Your task to perform on an android device: toggle data saver in the chrome app Image 0: 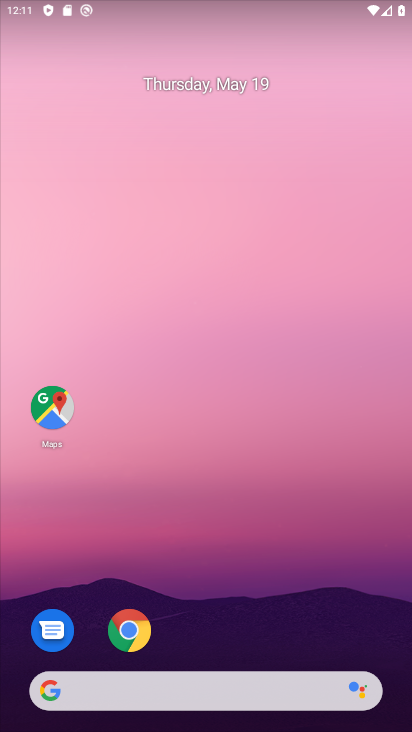
Step 0: click (132, 627)
Your task to perform on an android device: toggle data saver in the chrome app Image 1: 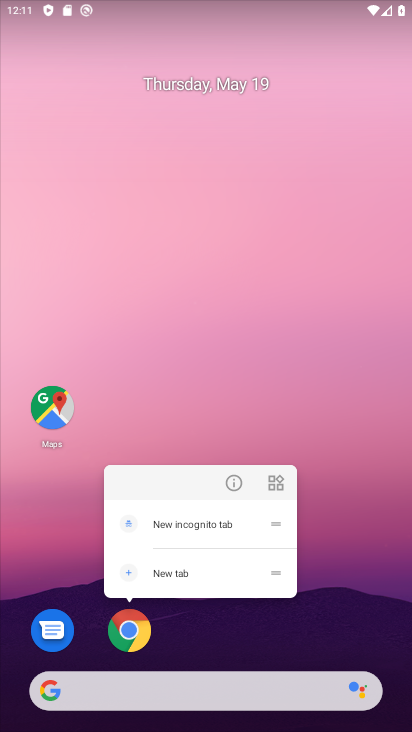
Step 1: click (225, 473)
Your task to perform on an android device: toggle data saver in the chrome app Image 2: 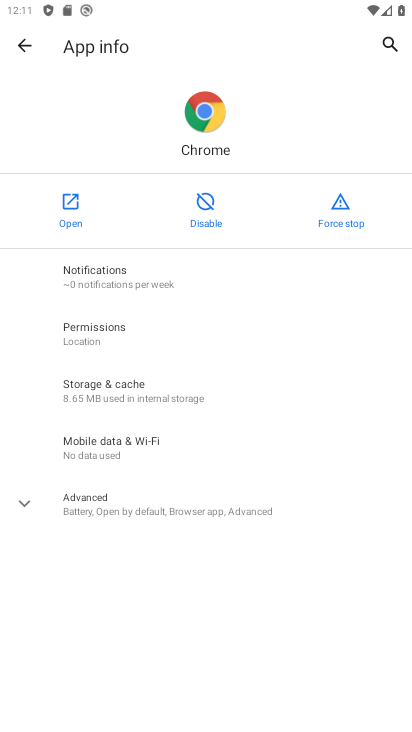
Step 2: click (59, 208)
Your task to perform on an android device: toggle data saver in the chrome app Image 3: 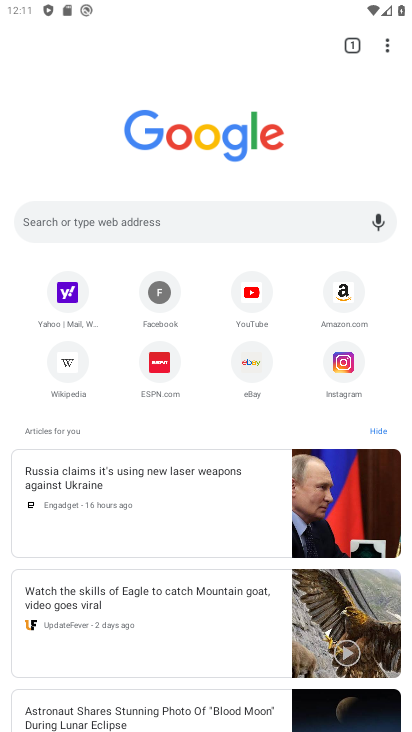
Step 3: click (381, 45)
Your task to perform on an android device: toggle data saver in the chrome app Image 4: 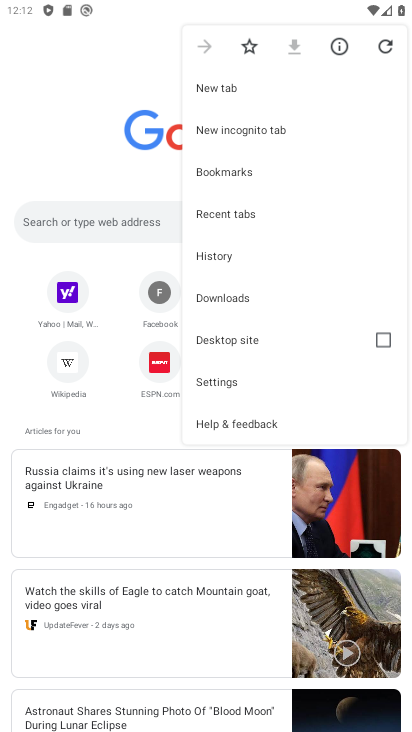
Step 4: click (230, 374)
Your task to perform on an android device: toggle data saver in the chrome app Image 5: 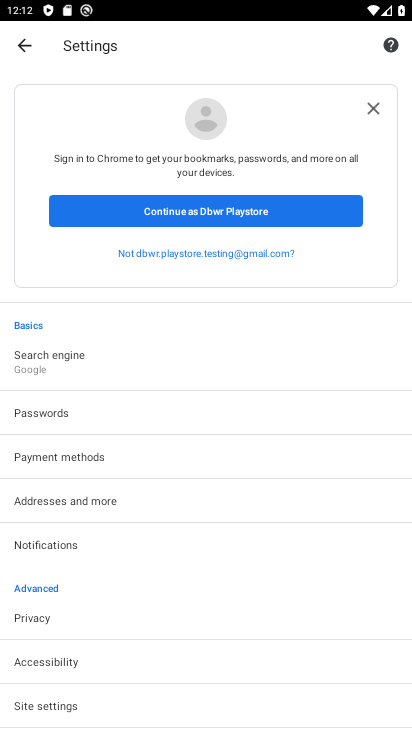
Step 5: drag from (187, 543) to (315, 89)
Your task to perform on an android device: toggle data saver in the chrome app Image 6: 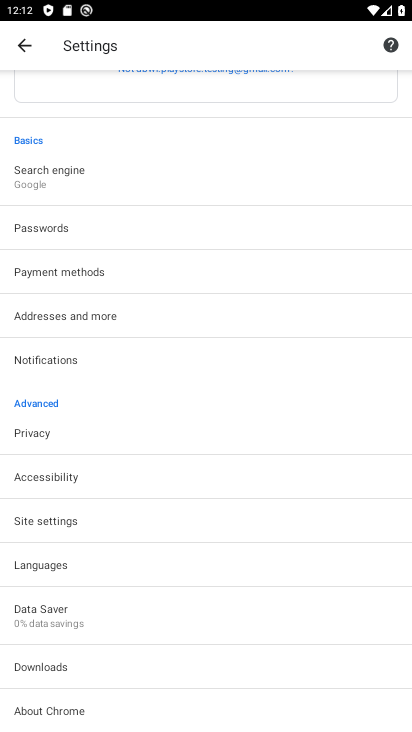
Step 6: click (91, 609)
Your task to perform on an android device: toggle data saver in the chrome app Image 7: 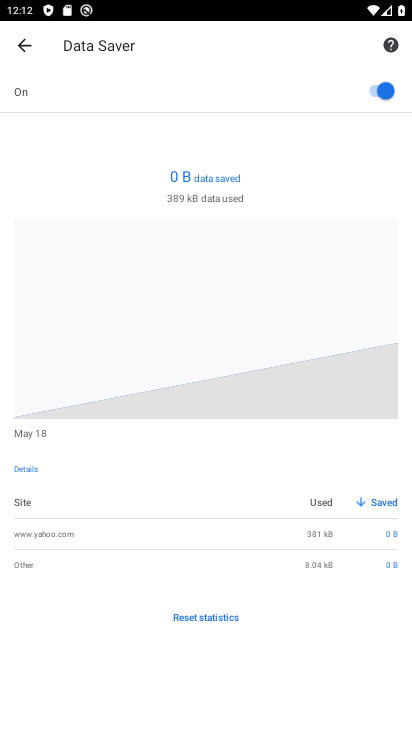
Step 7: click (379, 93)
Your task to perform on an android device: toggle data saver in the chrome app Image 8: 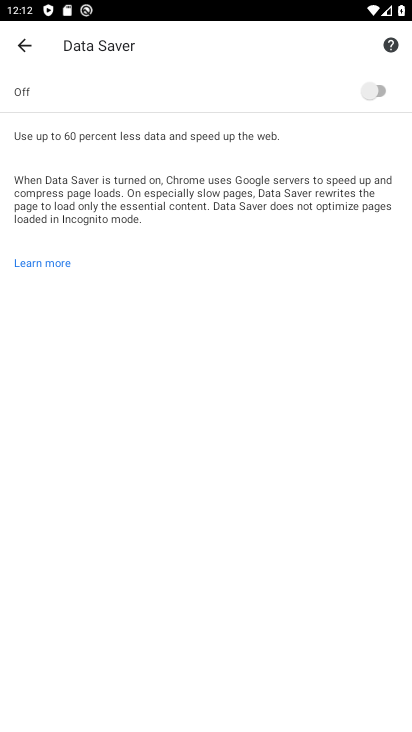
Step 8: task complete